Your task to perform on an android device: Open display settings Image 0: 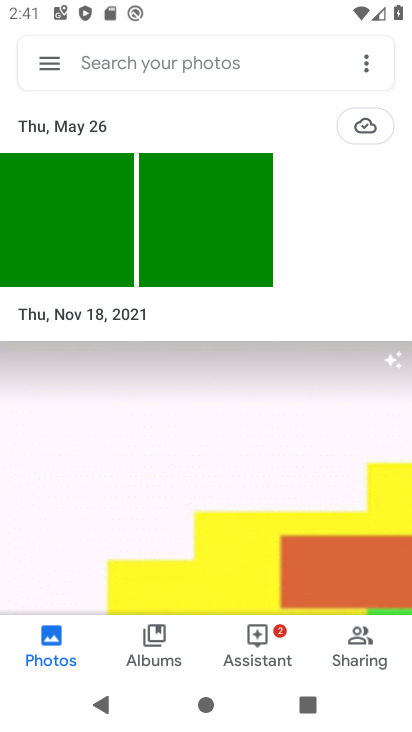
Step 0: press home button
Your task to perform on an android device: Open display settings Image 1: 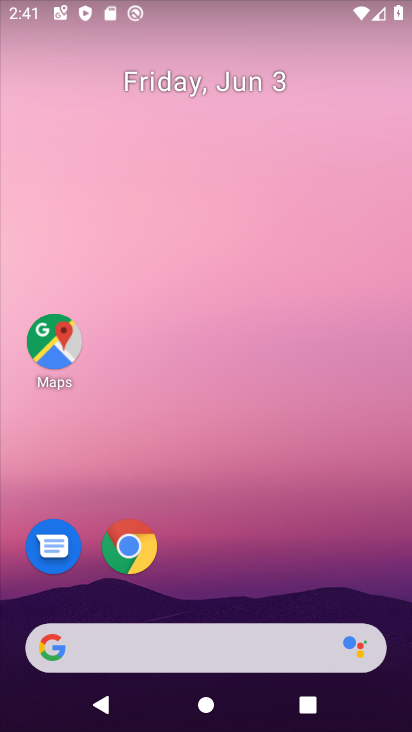
Step 1: drag from (238, 531) to (208, 19)
Your task to perform on an android device: Open display settings Image 2: 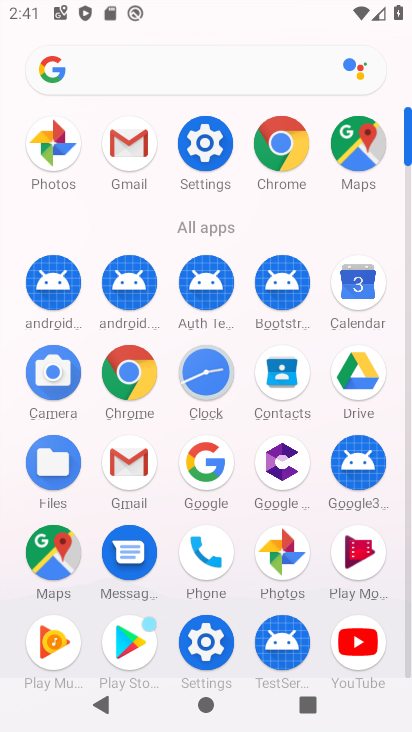
Step 2: click (200, 140)
Your task to perform on an android device: Open display settings Image 3: 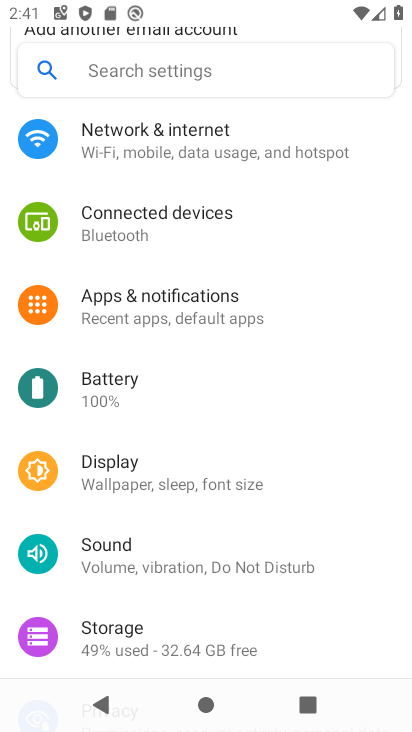
Step 3: click (146, 462)
Your task to perform on an android device: Open display settings Image 4: 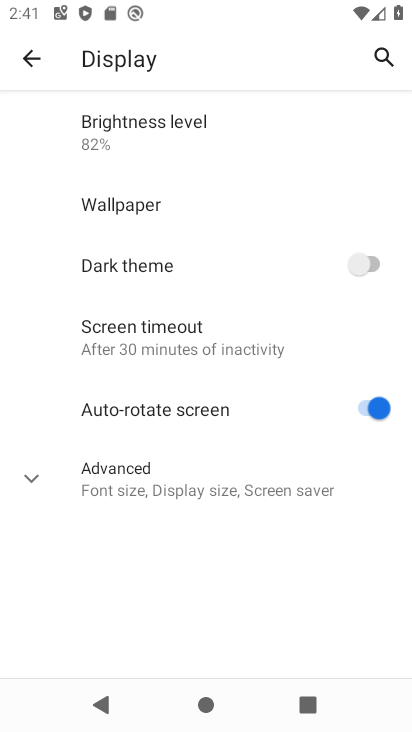
Step 4: task complete